Your task to perform on an android device: check android version Image 0: 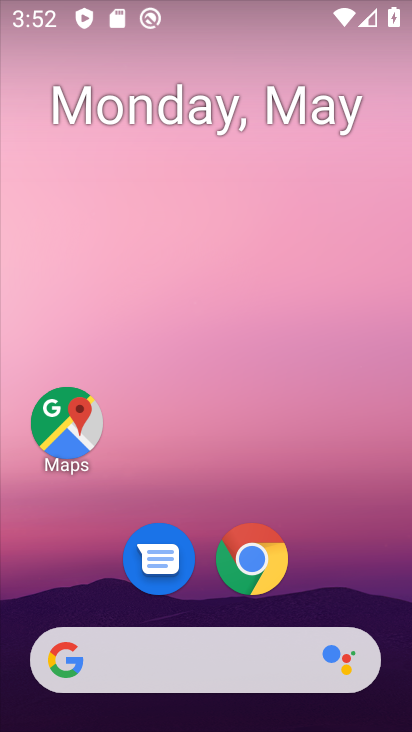
Step 0: drag from (341, 554) to (239, 21)
Your task to perform on an android device: check android version Image 1: 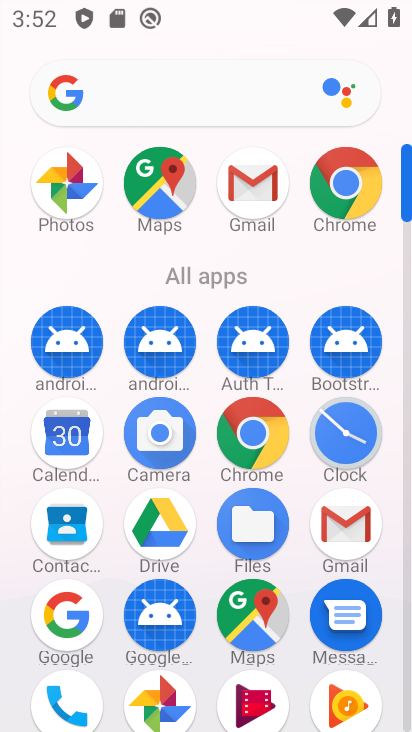
Step 1: drag from (0, 557) to (18, 248)
Your task to perform on an android device: check android version Image 2: 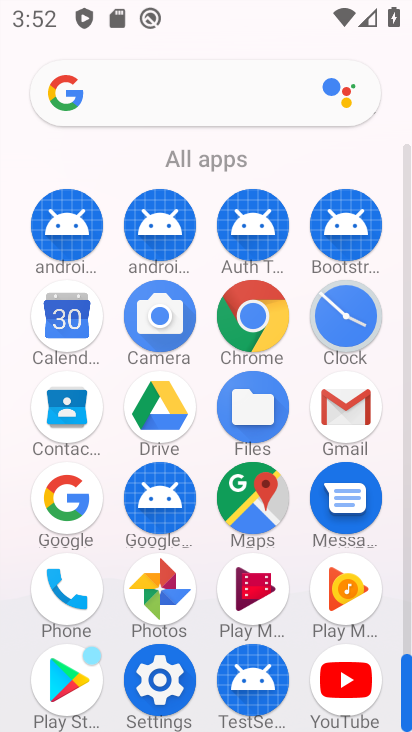
Step 2: click (159, 680)
Your task to perform on an android device: check android version Image 3: 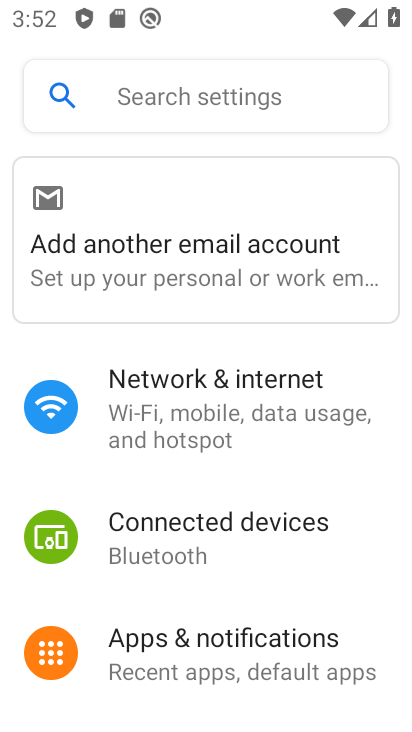
Step 3: drag from (277, 618) to (267, 130)
Your task to perform on an android device: check android version Image 4: 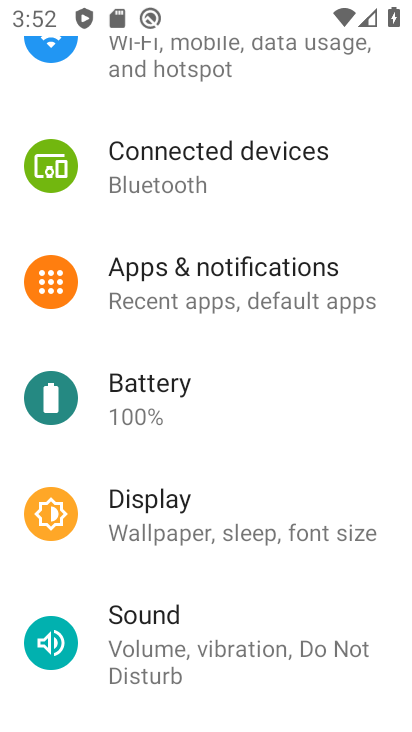
Step 4: drag from (260, 573) to (282, 138)
Your task to perform on an android device: check android version Image 5: 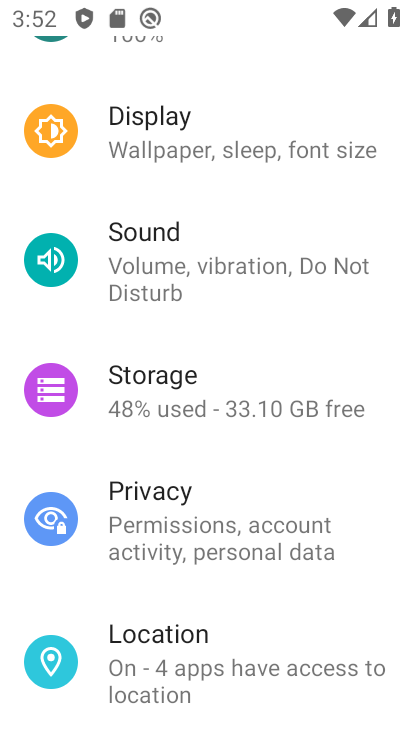
Step 5: drag from (243, 609) to (243, 128)
Your task to perform on an android device: check android version Image 6: 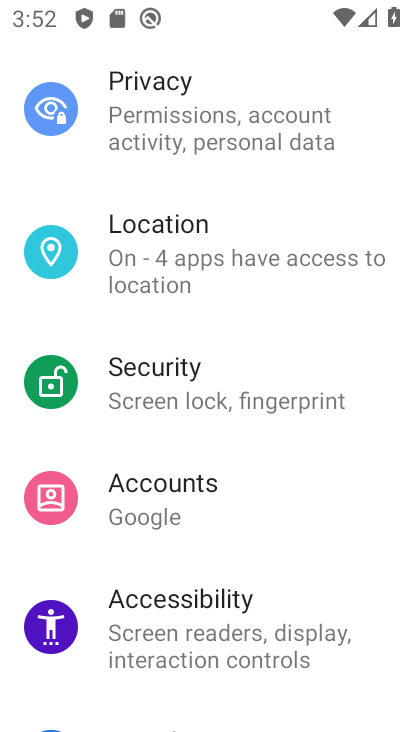
Step 6: drag from (251, 613) to (242, 222)
Your task to perform on an android device: check android version Image 7: 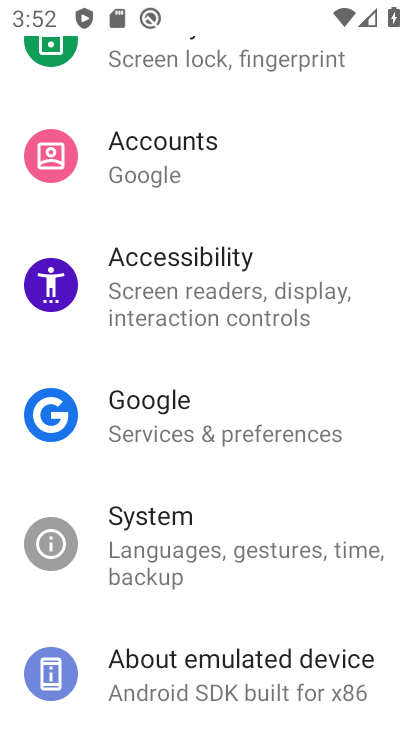
Step 7: drag from (259, 637) to (278, 208)
Your task to perform on an android device: check android version Image 8: 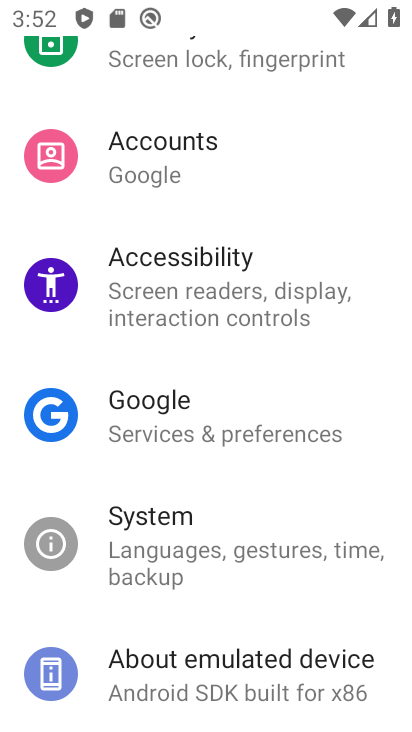
Step 8: click (256, 657)
Your task to perform on an android device: check android version Image 9: 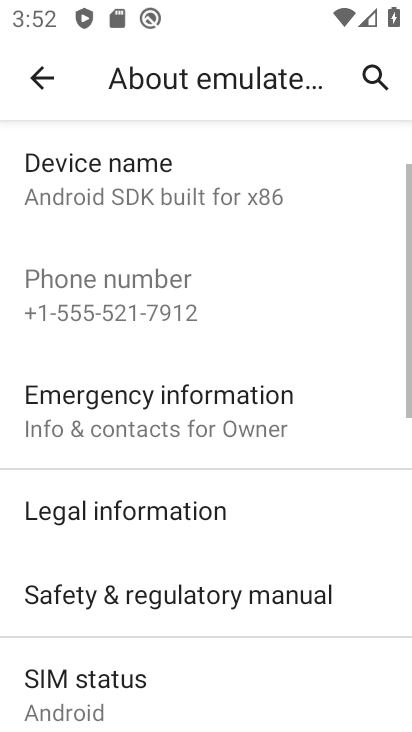
Step 9: task complete